Your task to perform on an android device: Turn off the flashlight Image 0: 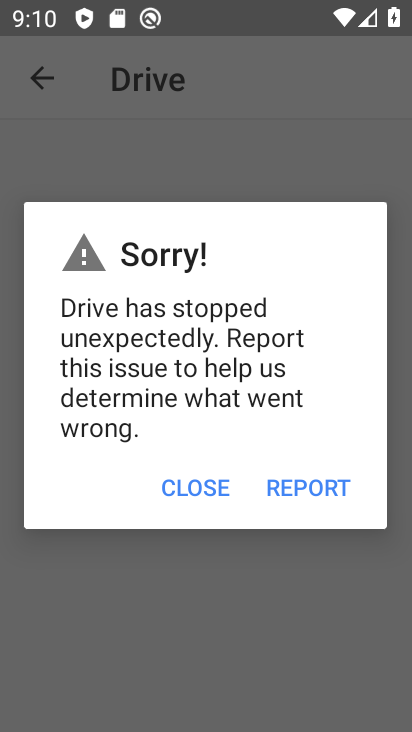
Step 0: press home button
Your task to perform on an android device: Turn off the flashlight Image 1: 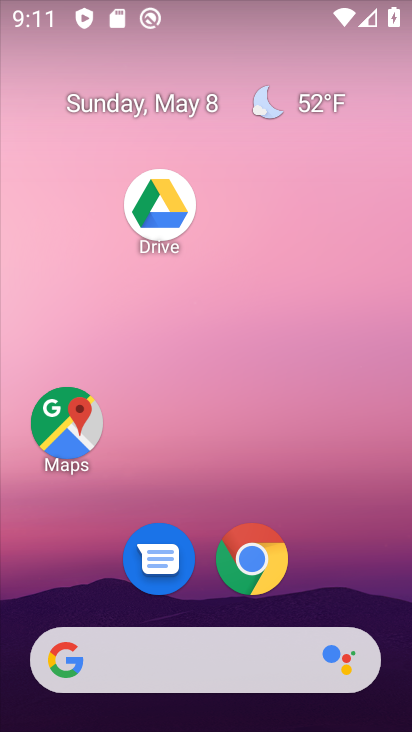
Step 1: drag from (368, 6) to (370, 555)
Your task to perform on an android device: Turn off the flashlight Image 2: 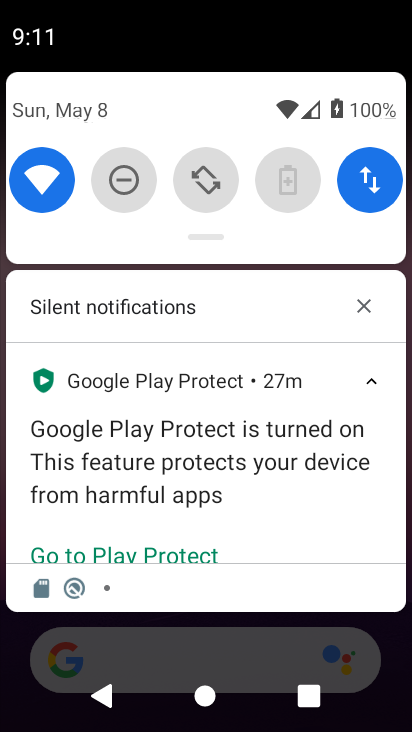
Step 2: drag from (272, 231) to (285, 585)
Your task to perform on an android device: Turn off the flashlight Image 3: 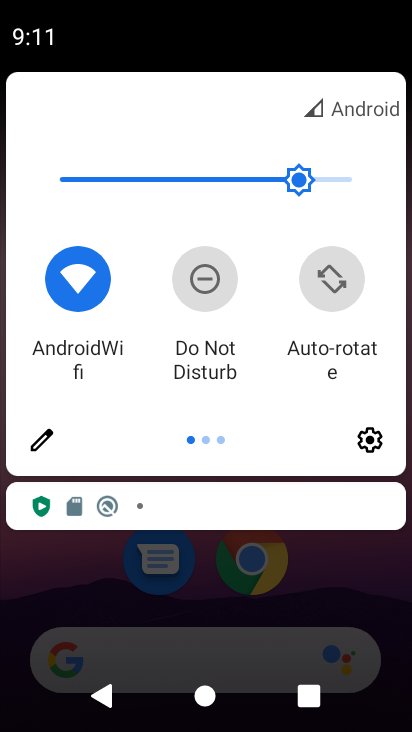
Step 3: click (21, 435)
Your task to perform on an android device: Turn off the flashlight Image 4: 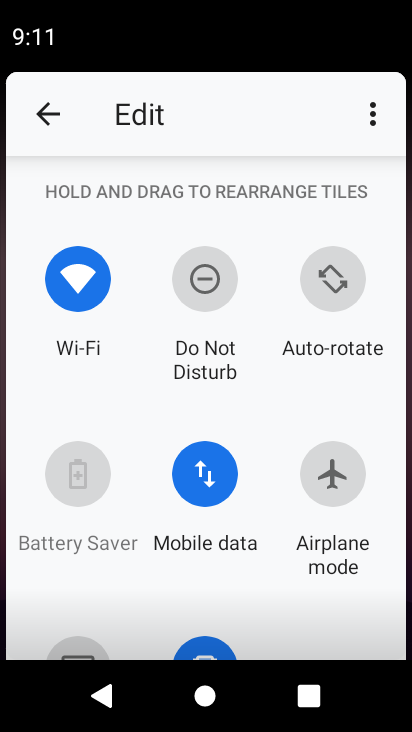
Step 4: task complete